Your task to perform on an android device: change text size in settings app Image 0: 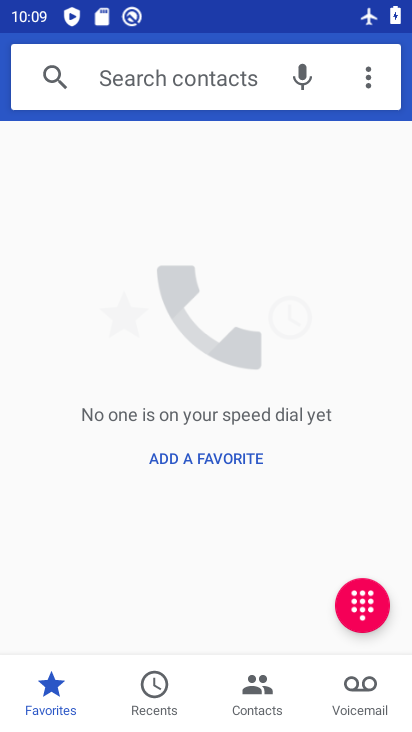
Step 0: press home button
Your task to perform on an android device: change text size in settings app Image 1: 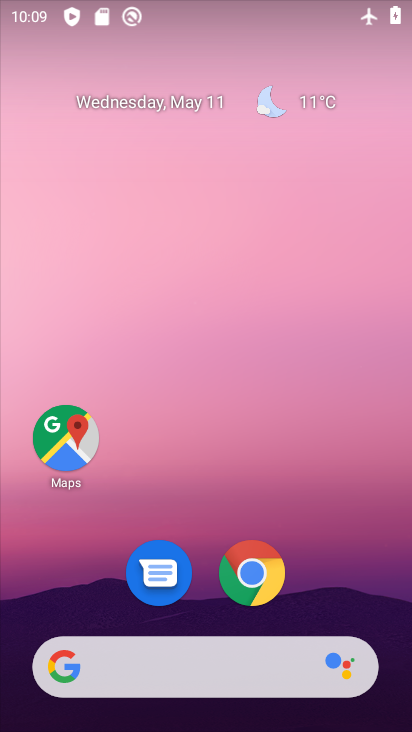
Step 1: drag from (201, 548) to (248, 6)
Your task to perform on an android device: change text size in settings app Image 2: 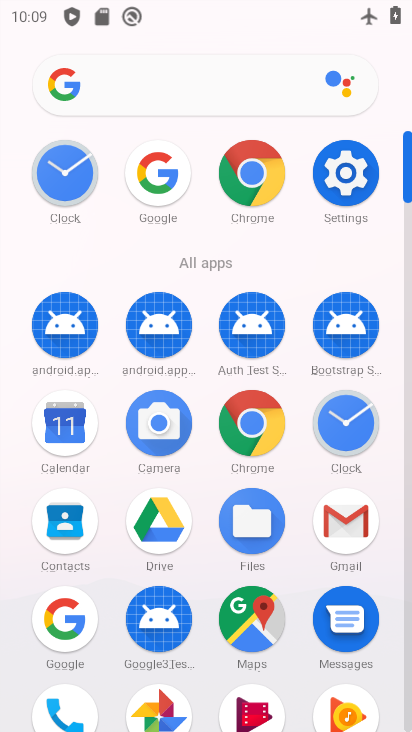
Step 2: click (329, 158)
Your task to perform on an android device: change text size in settings app Image 3: 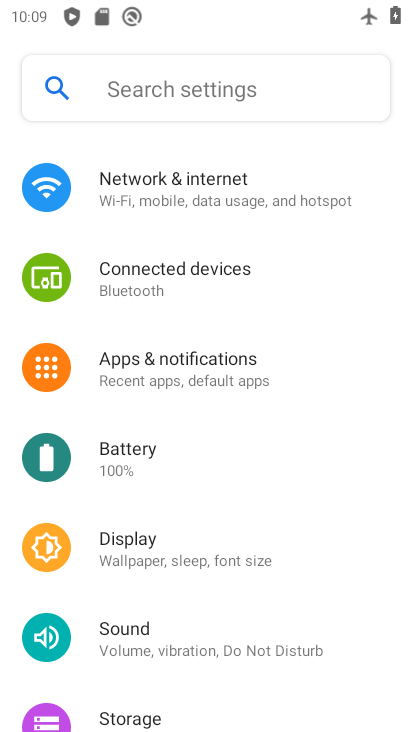
Step 3: click (163, 544)
Your task to perform on an android device: change text size in settings app Image 4: 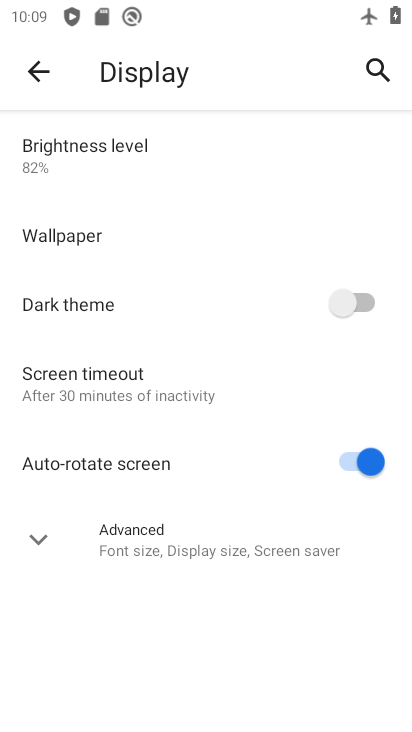
Step 4: click (163, 544)
Your task to perform on an android device: change text size in settings app Image 5: 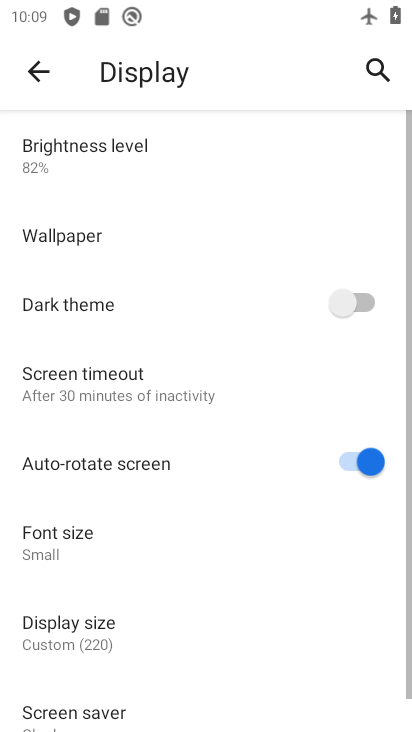
Step 5: click (163, 544)
Your task to perform on an android device: change text size in settings app Image 6: 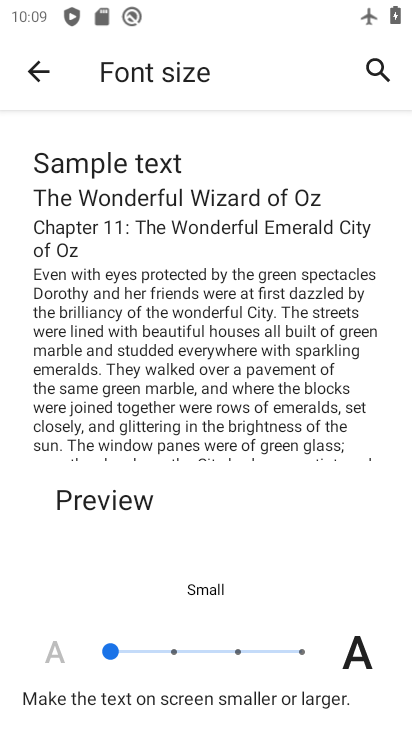
Step 6: click (174, 651)
Your task to perform on an android device: change text size in settings app Image 7: 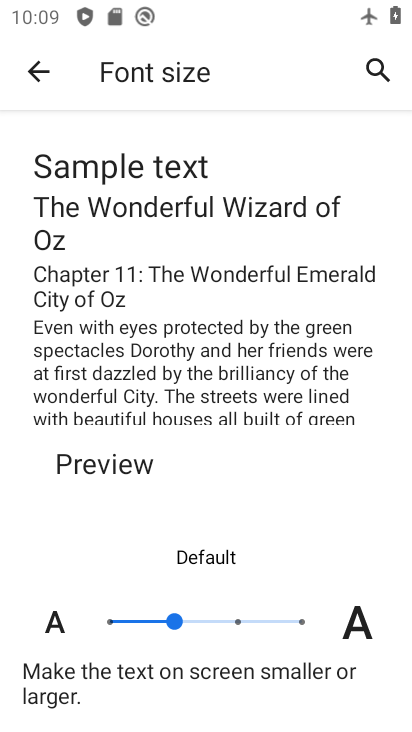
Step 7: task complete